Your task to perform on an android device: toggle airplane mode Image 0: 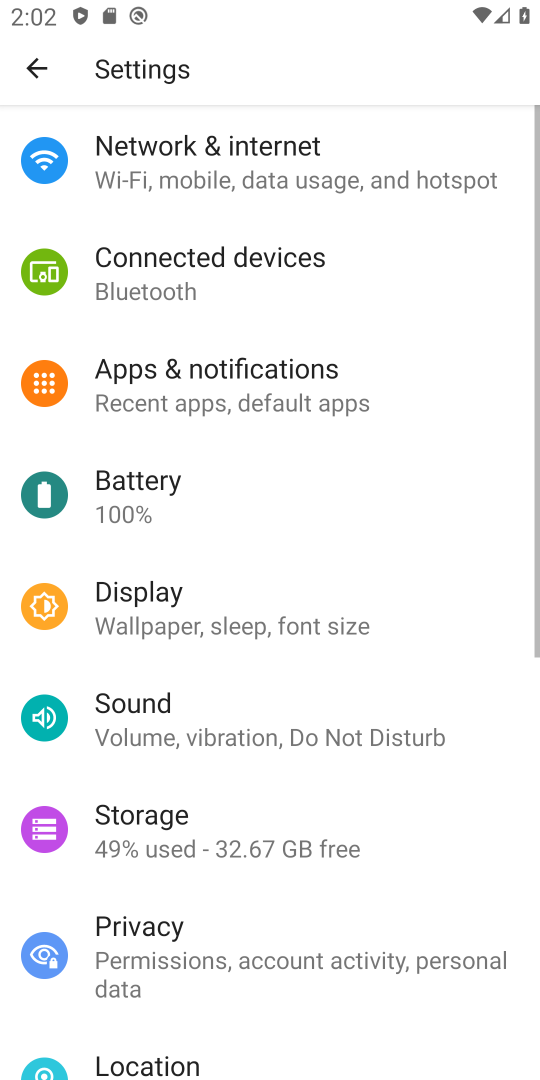
Step 0: click (28, 70)
Your task to perform on an android device: toggle airplane mode Image 1: 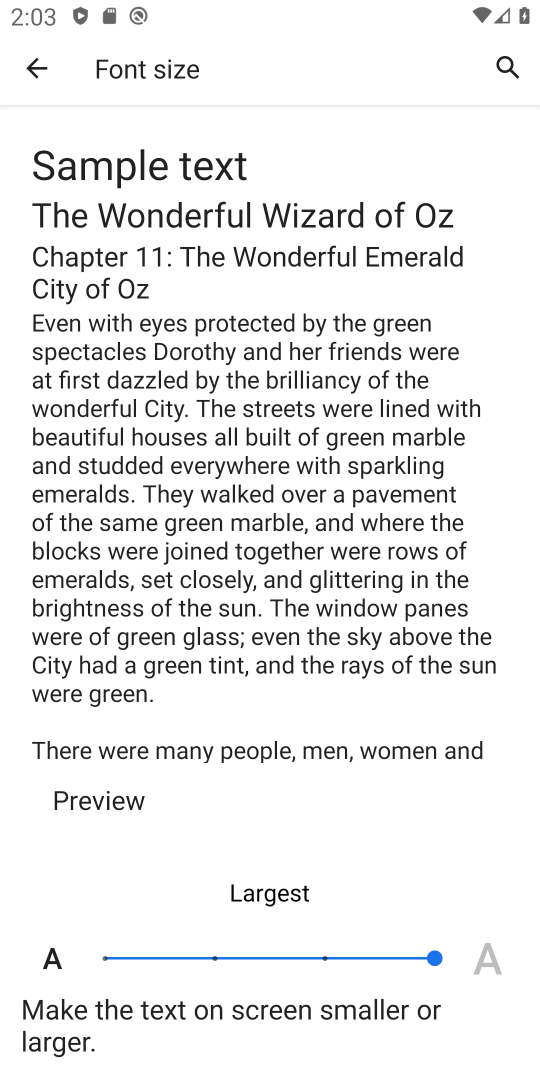
Step 1: press back button
Your task to perform on an android device: toggle airplane mode Image 2: 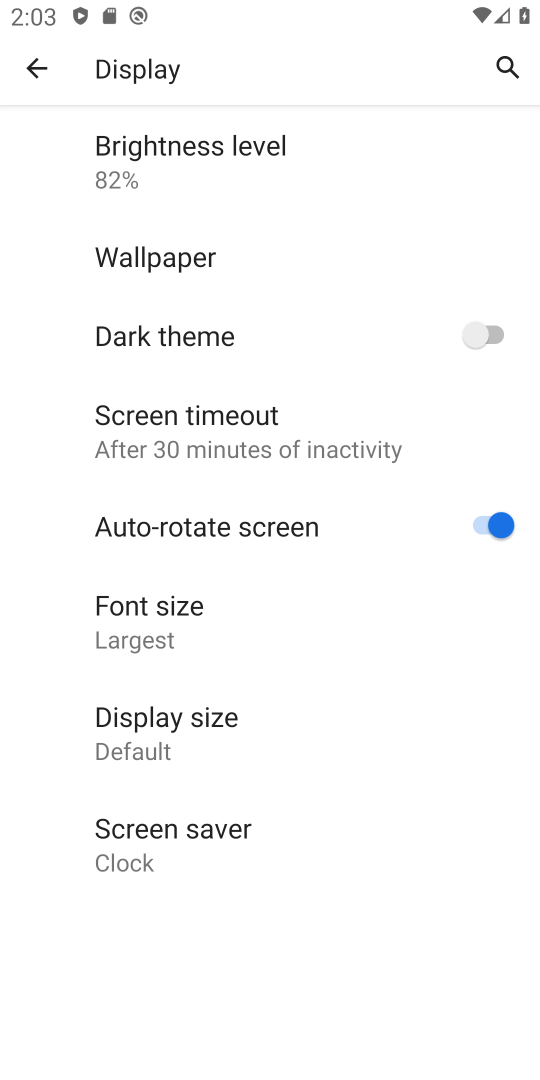
Step 2: click (27, 69)
Your task to perform on an android device: toggle airplane mode Image 3: 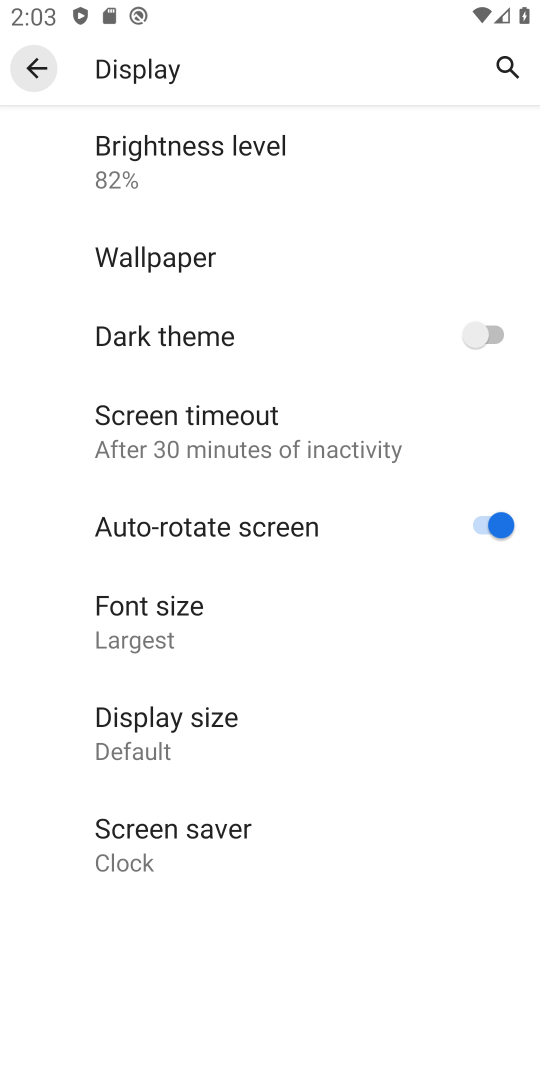
Step 3: click (28, 70)
Your task to perform on an android device: toggle airplane mode Image 4: 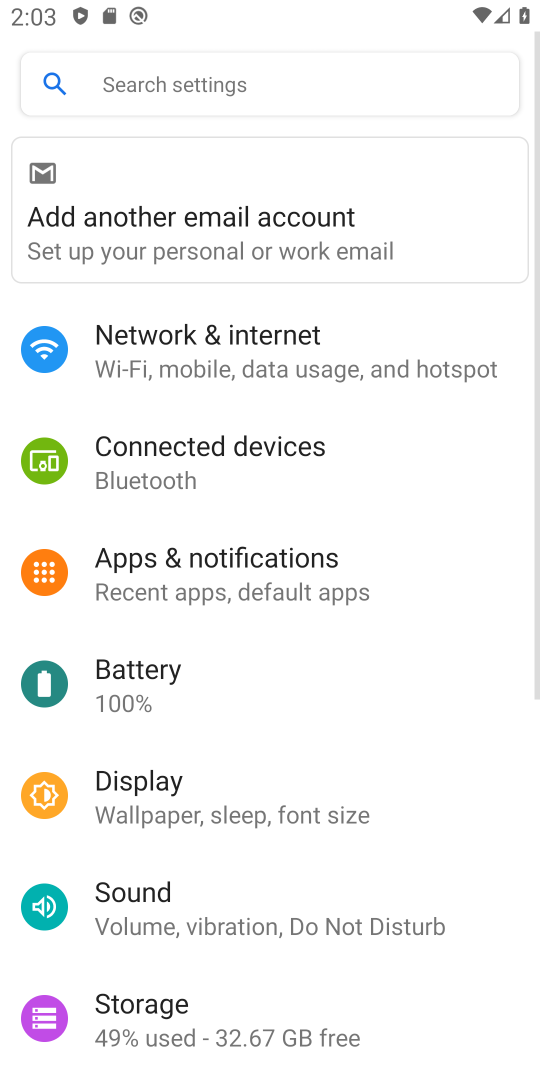
Step 4: click (229, 201)
Your task to perform on an android device: toggle airplane mode Image 5: 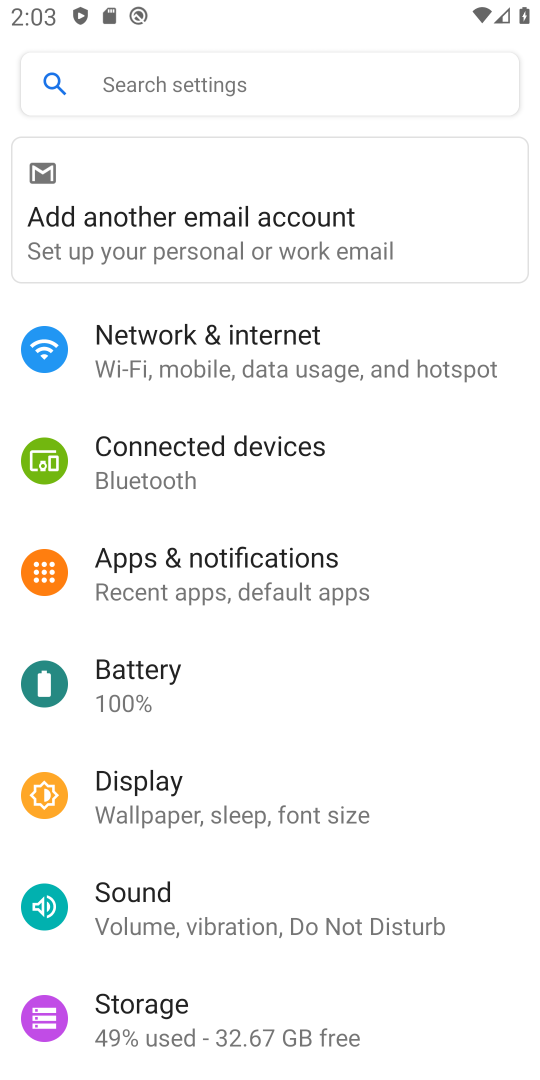
Step 5: click (216, 344)
Your task to perform on an android device: toggle airplane mode Image 6: 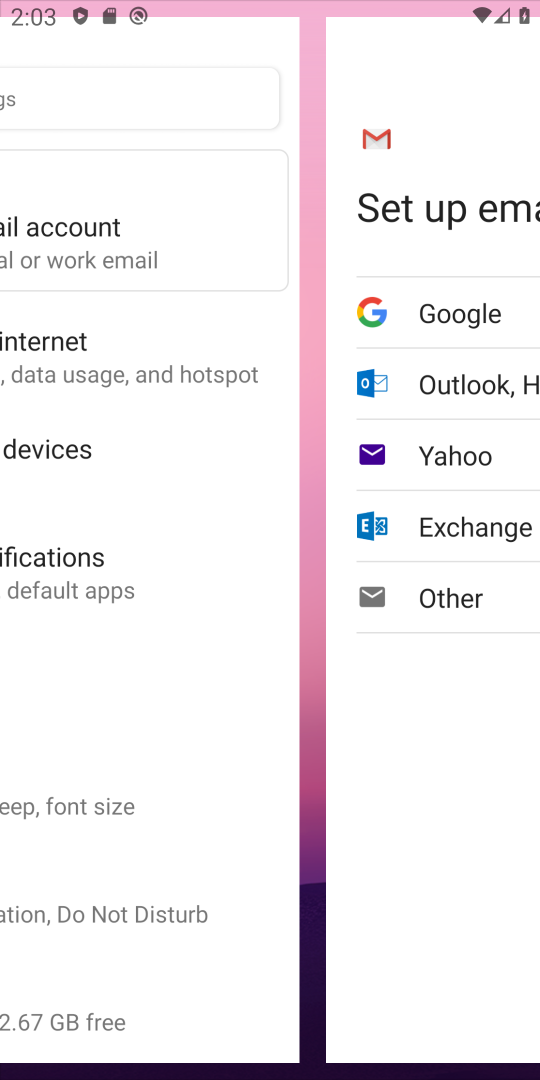
Step 6: click (226, 350)
Your task to perform on an android device: toggle airplane mode Image 7: 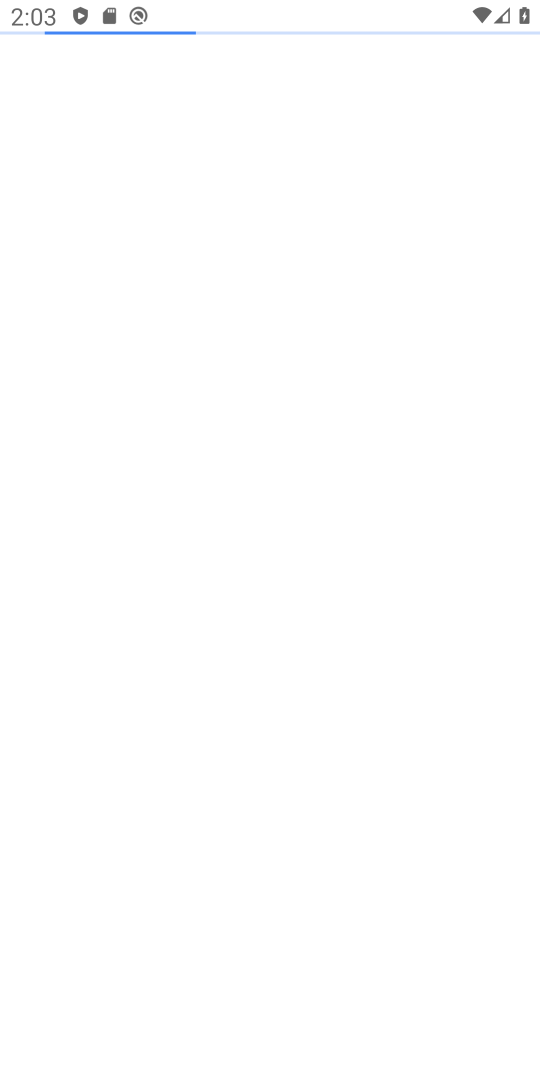
Step 7: press back button
Your task to perform on an android device: toggle airplane mode Image 8: 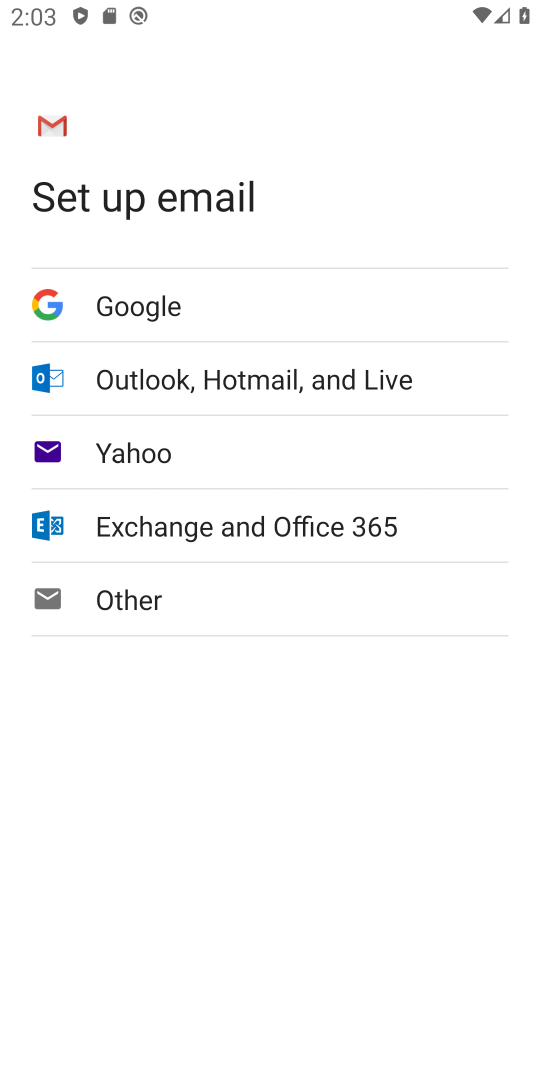
Step 8: press back button
Your task to perform on an android device: toggle airplane mode Image 9: 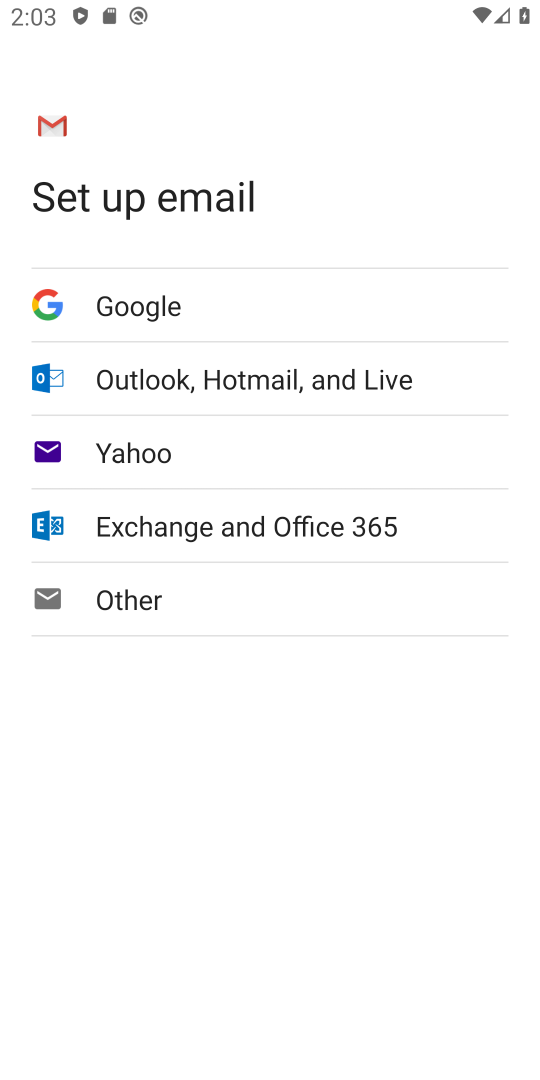
Step 9: press home button
Your task to perform on an android device: toggle airplane mode Image 10: 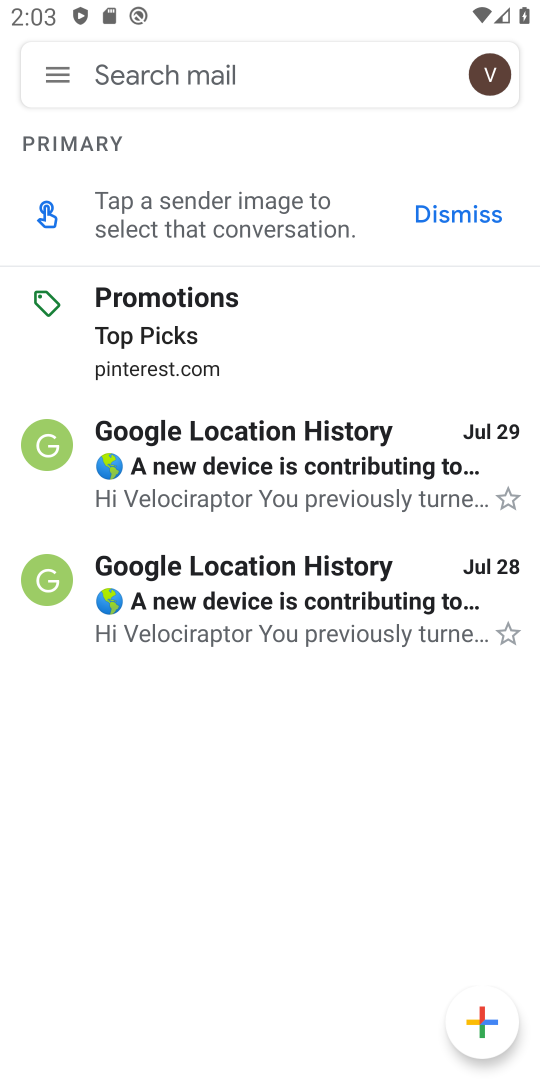
Step 10: press home button
Your task to perform on an android device: toggle airplane mode Image 11: 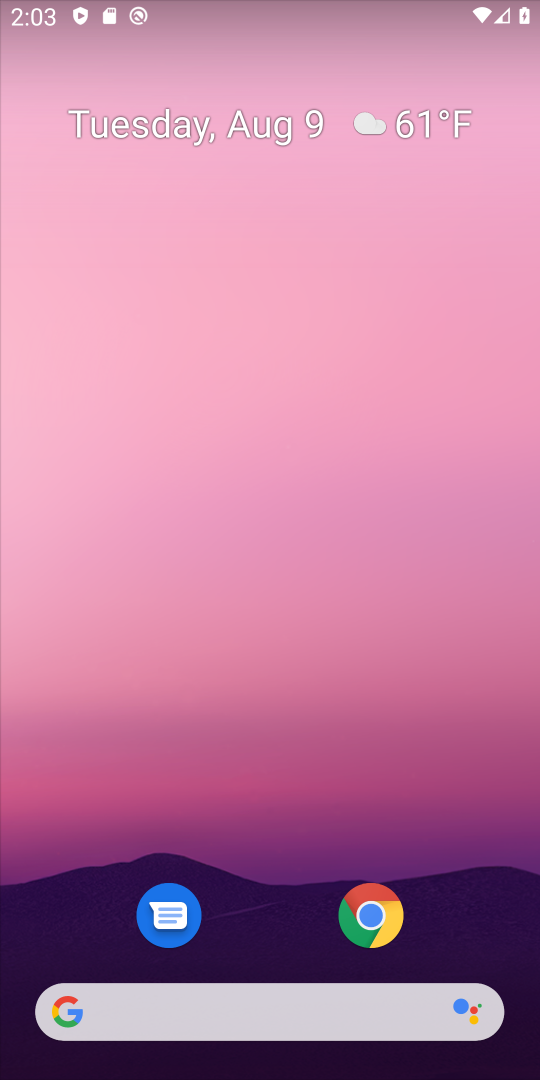
Step 11: press back button
Your task to perform on an android device: toggle airplane mode Image 12: 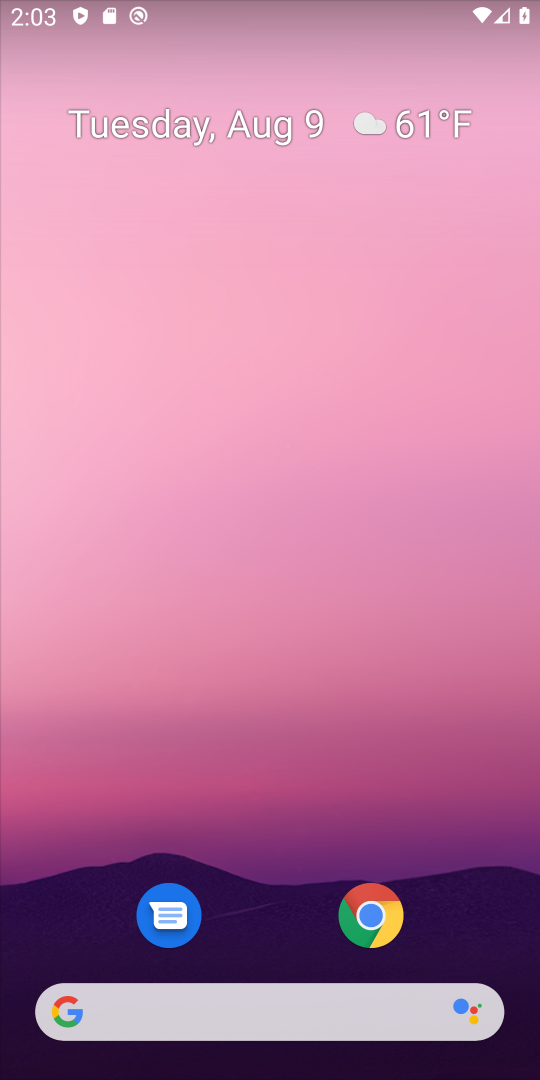
Step 12: press back button
Your task to perform on an android device: toggle airplane mode Image 13: 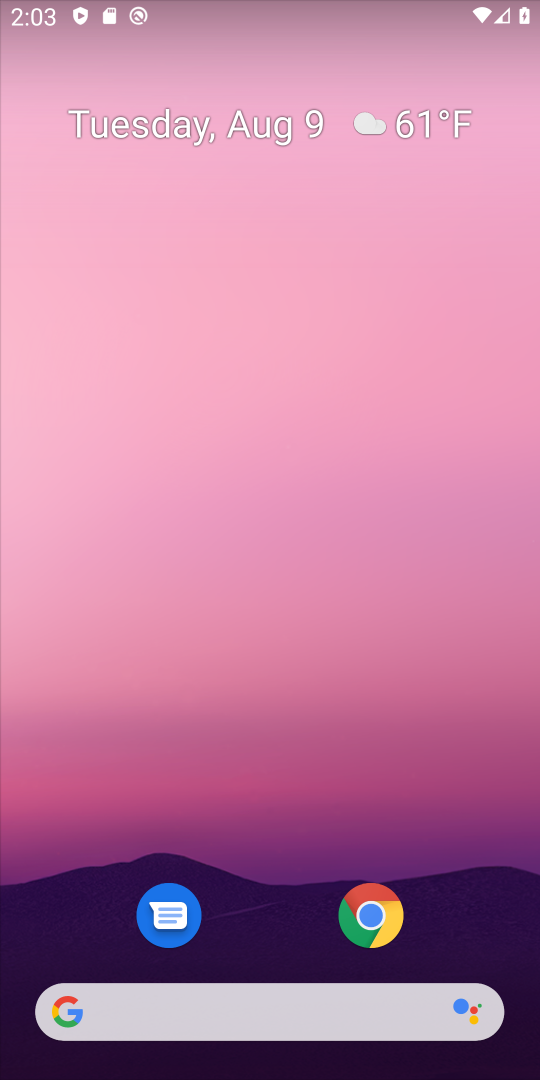
Step 13: drag from (377, 536) to (205, 183)
Your task to perform on an android device: toggle airplane mode Image 14: 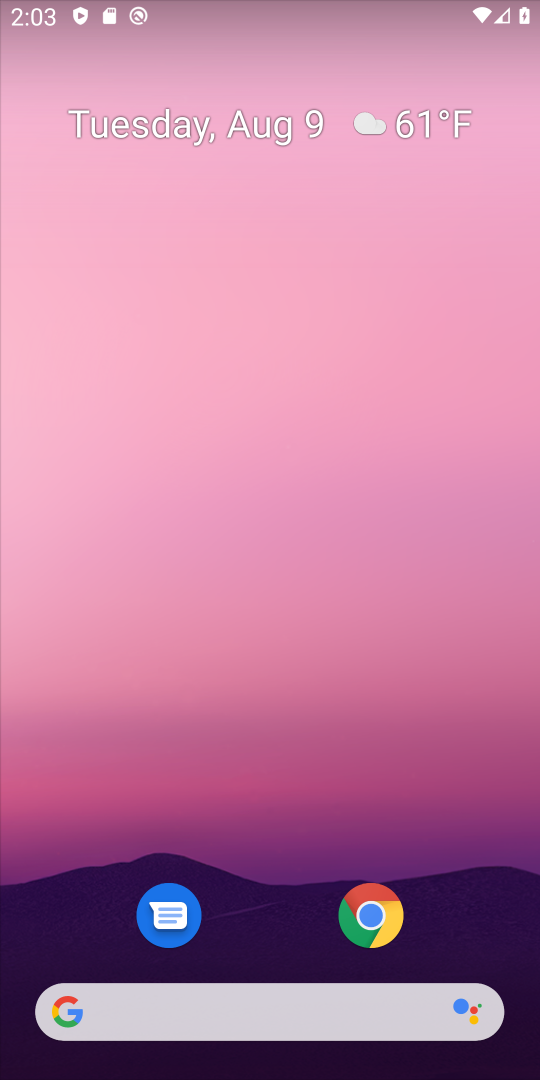
Step 14: drag from (194, 18) to (264, 84)
Your task to perform on an android device: toggle airplane mode Image 15: 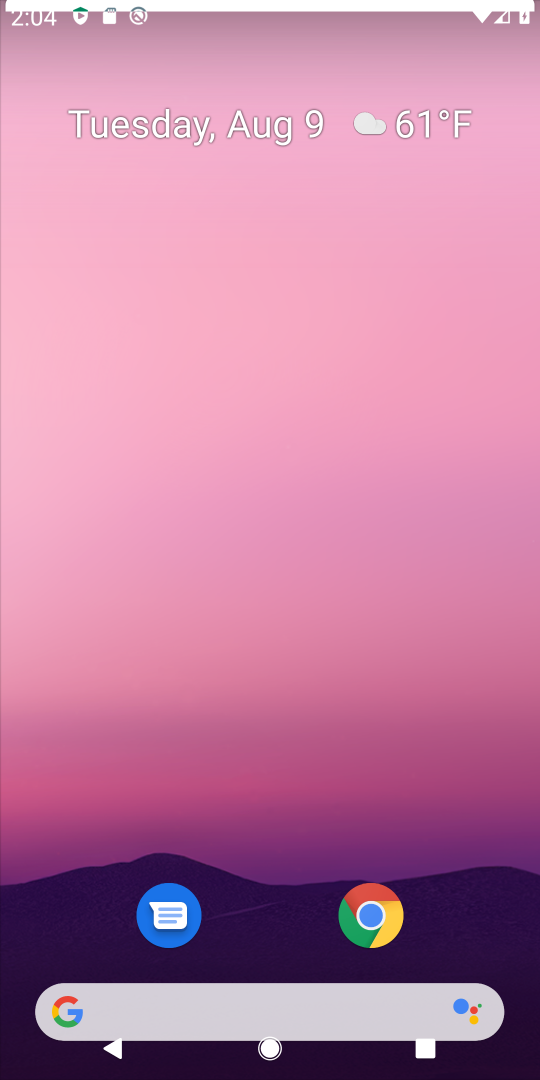
Step 15: drag from (328, 952) to (261, 228)
Your task to perform on an android device: toggle airplane mode Image 16: 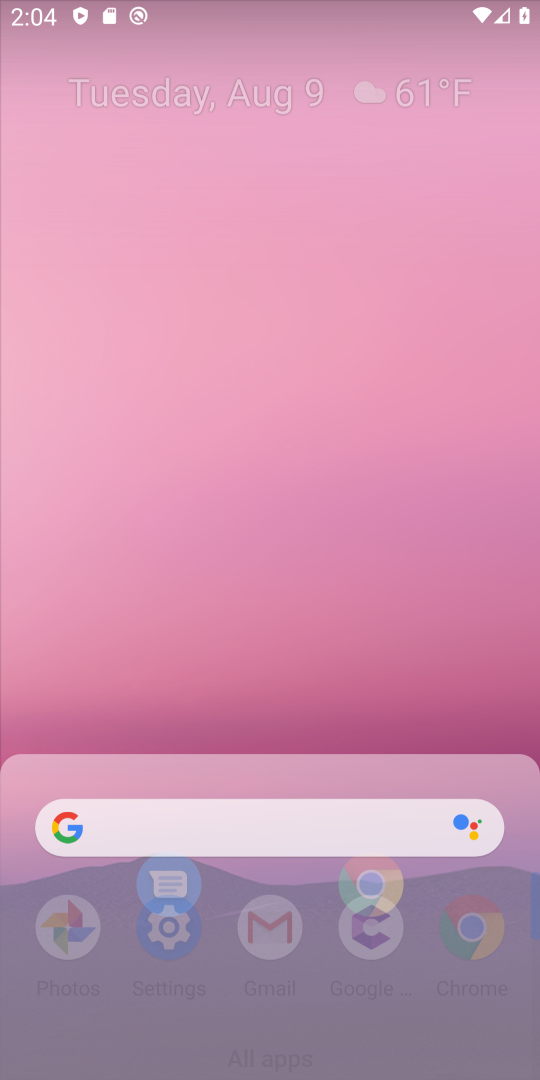
Step 16: drag from (333, 574) to (333, 139)
Your task to perform on an android device: toggle airplane mode Image 17: 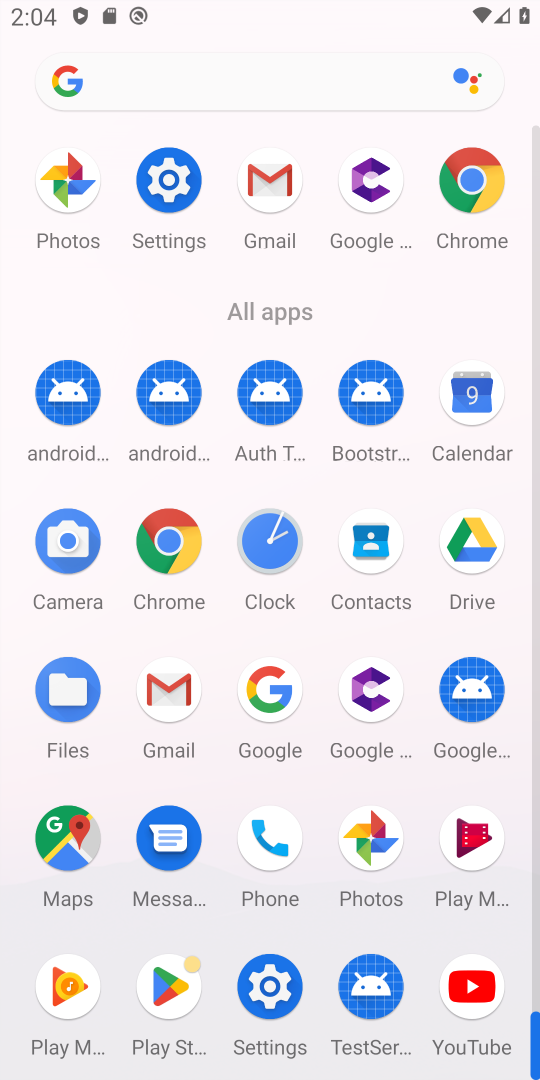
Step 17: click (175, 186)
Your task to perform on an android device: toggle airplane mode Image 18: 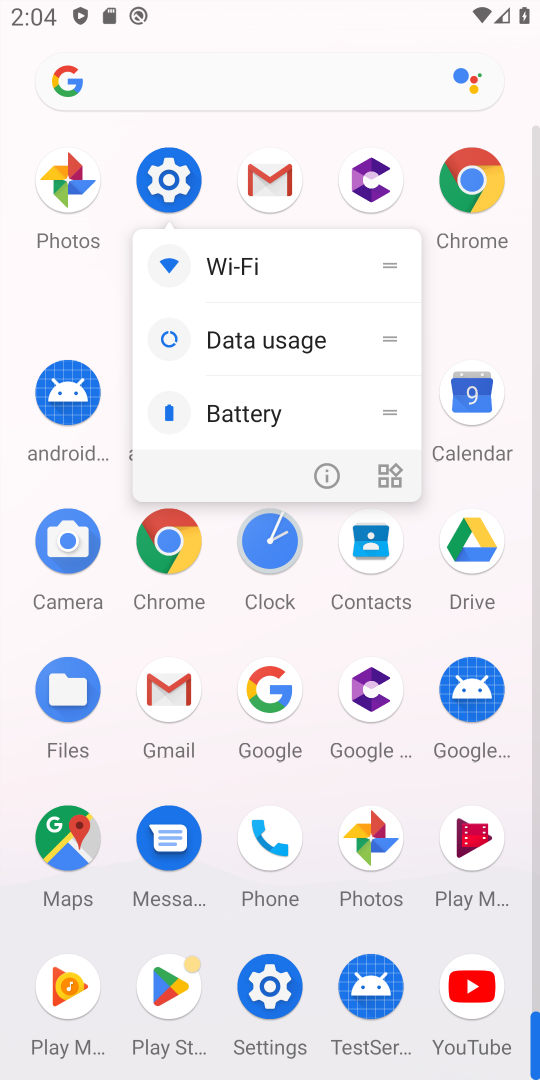
Step 18: click (174, 186)
Your task to perform on an android device: toggle airplane mode Image 19: 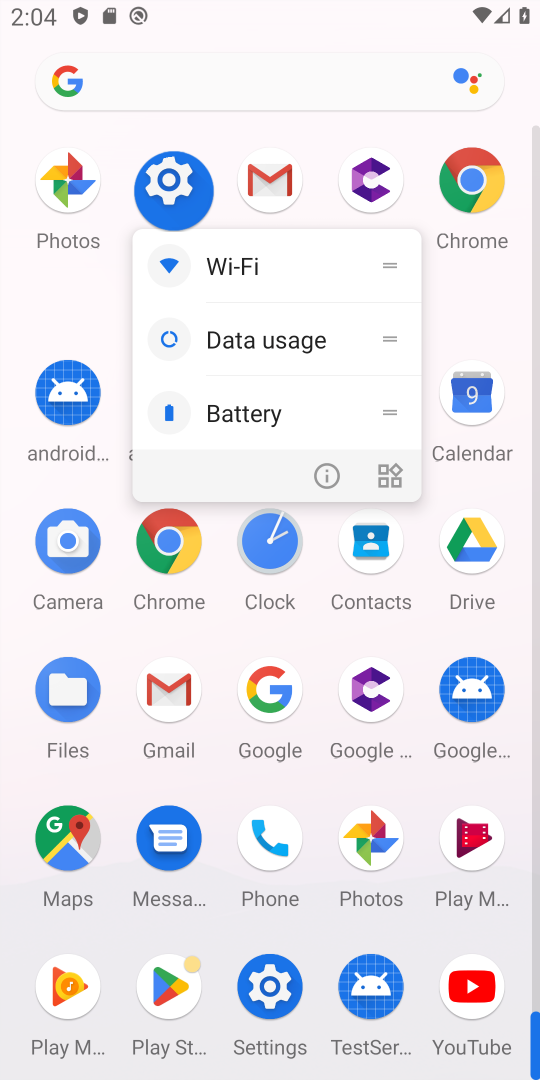
Step 19: click (180, 200)
Your task to perform on an android device: toggle airplane mode Image 20: 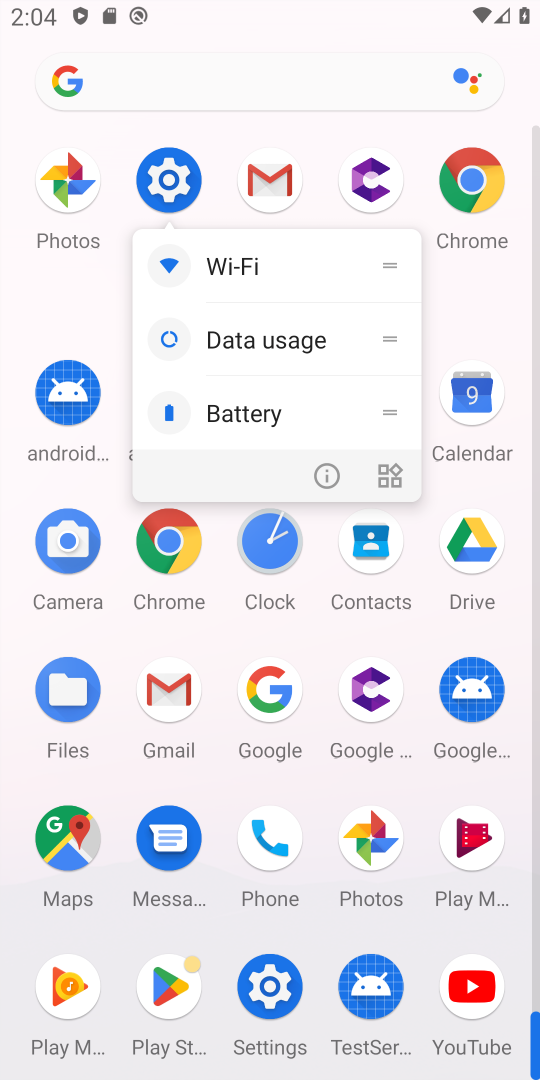
Step 20: click (234, 260)
Your task to perform on an android device: toggle airplane mode Image 21: 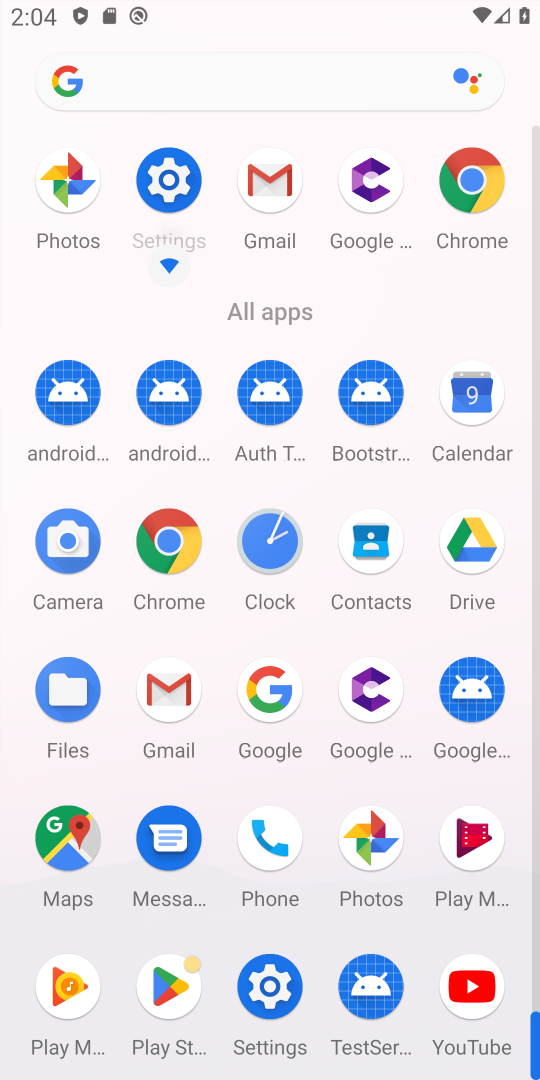
Step 21: click (234, 263)
Your task to perform on an android device: toggle airplane mode Image 22: 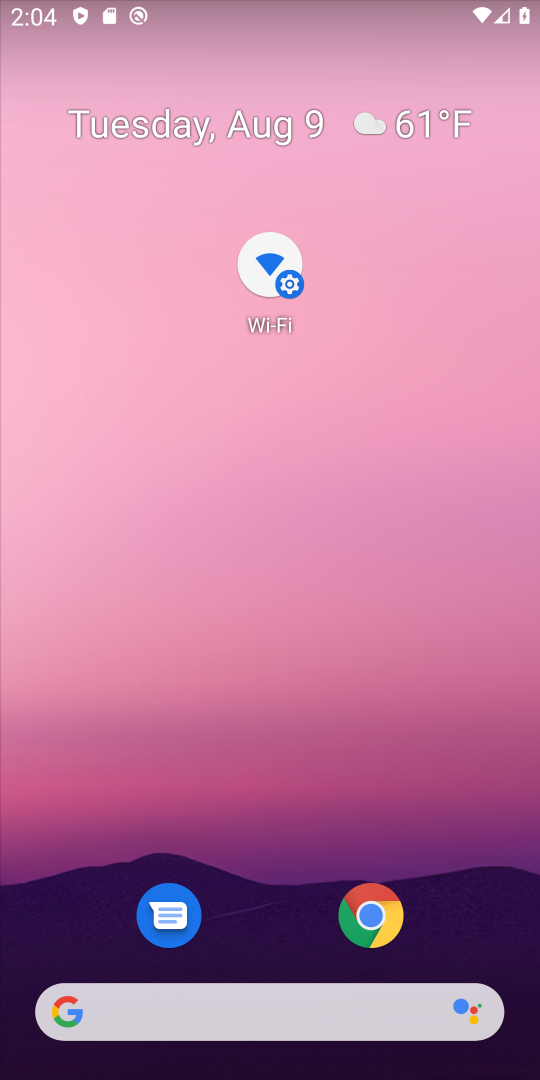
Step 22: drag from (287, 74) to (252, 361)
Your task to perform on an android device: toggle airplane mode Image 23: 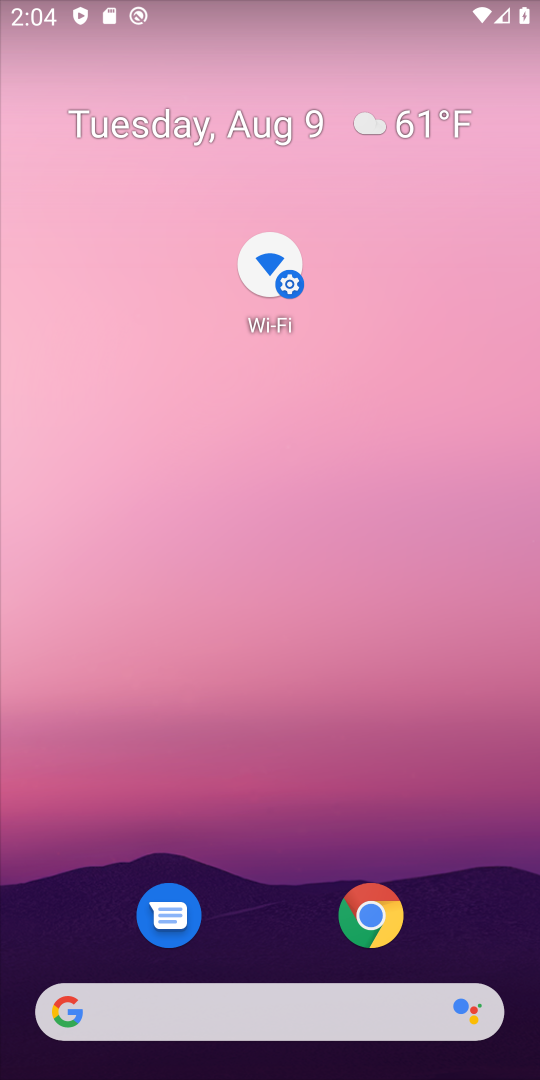
Step 23: drag from (364, 661) to (338, 392)
Your task to perform on an android device: toggle airplane mode Image 24: 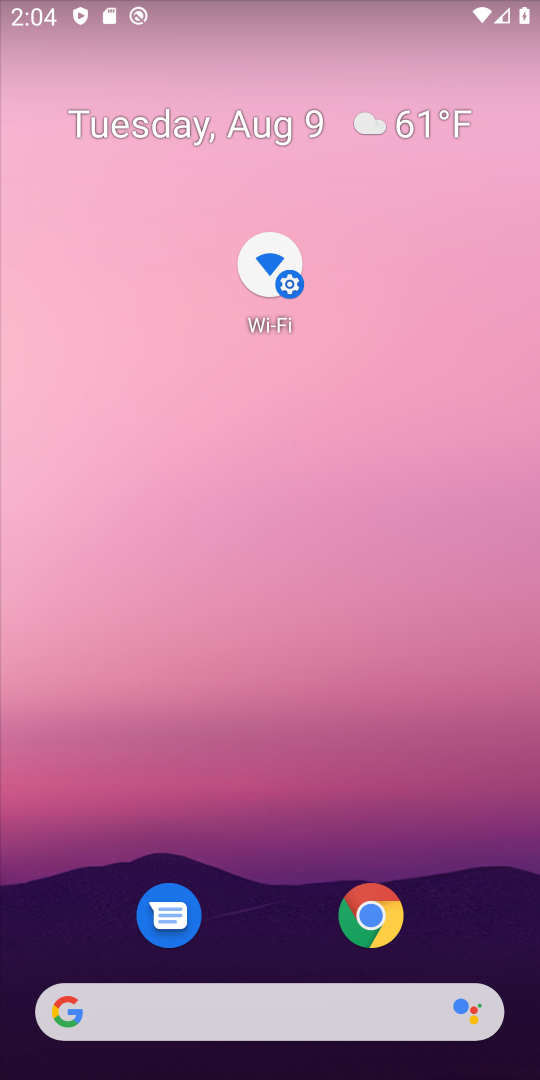
Step 24: drag from (339, 600) to (341, 291)
Your task to perform on an android device: toggle airplane mode Image 25: 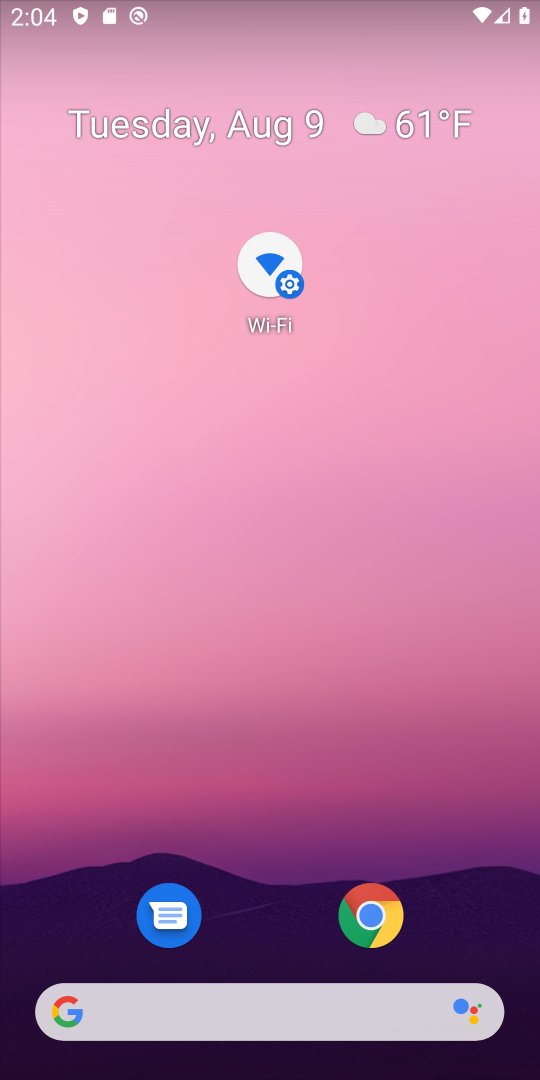
Step 25: click (268, 26)
Your task to perform on an android device: toggle airplane mode Image 26: 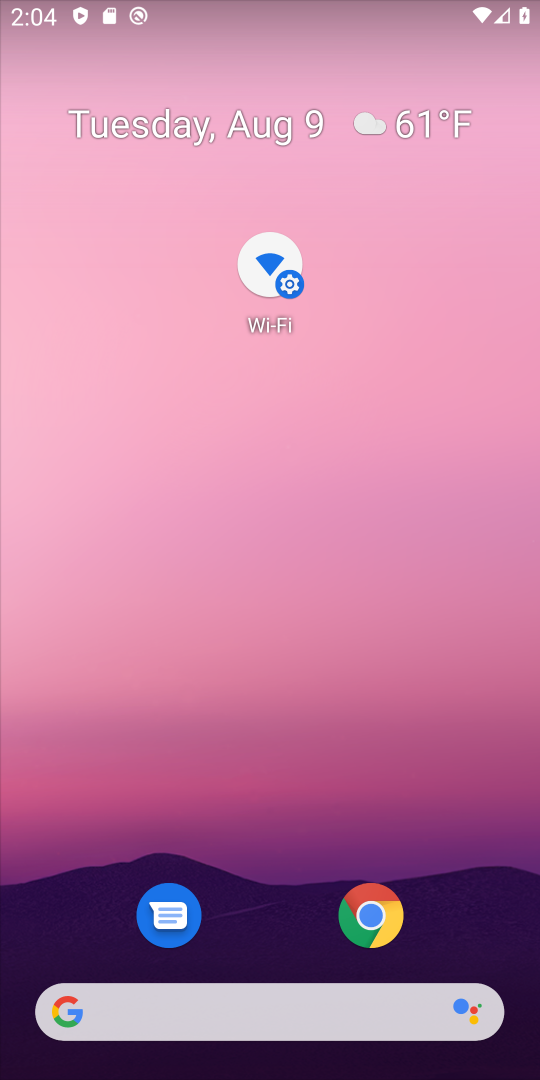
Step 26: drag from (279, 442) to (282, 3)
Your task to perform on an android device: toggle airplane mode Image 27: 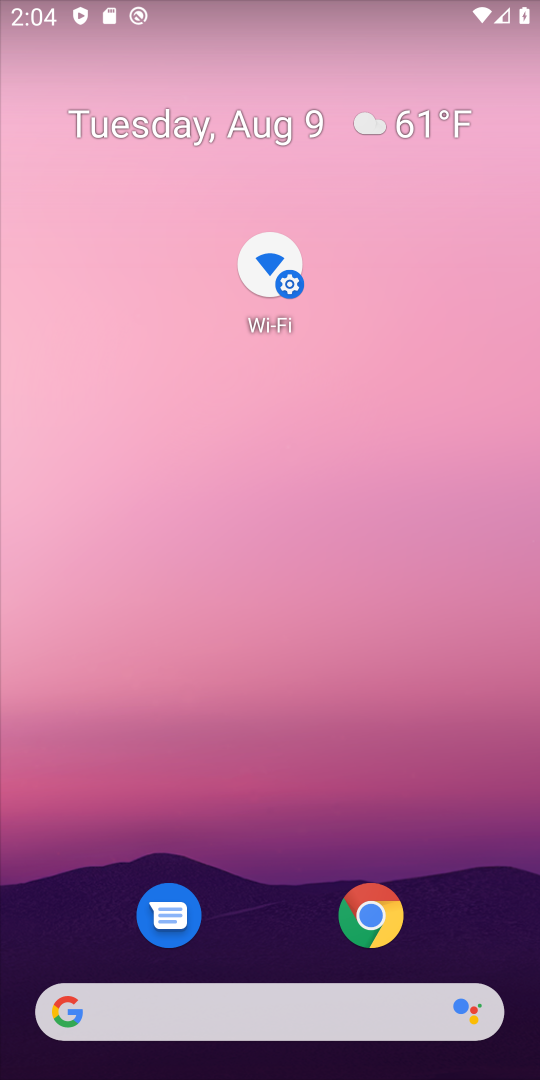
Step 27: drag from (352, 665) to (269, 170)
Your task to perform on an android device: toggle airplane mode Image 28: 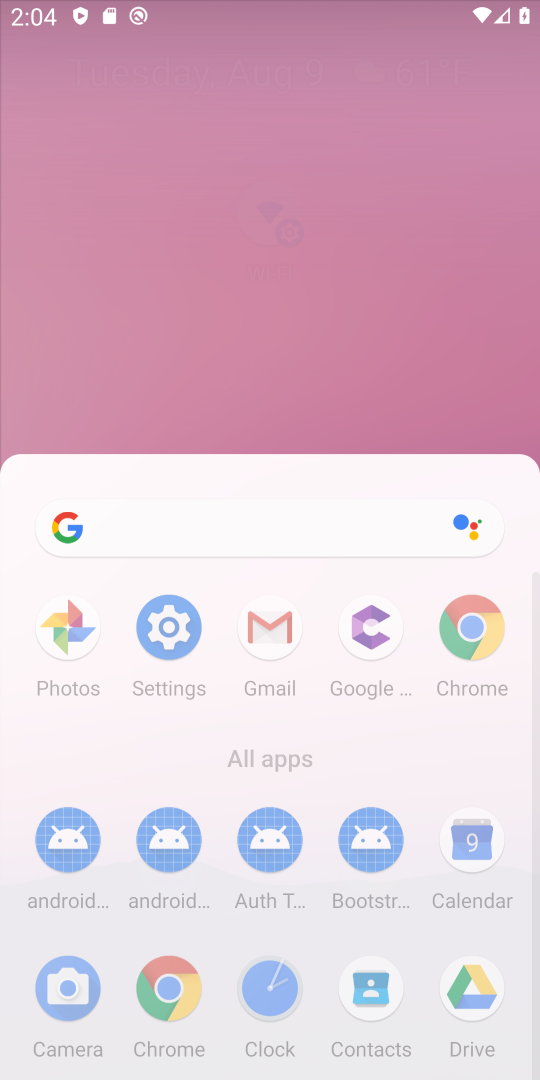
Step 28: drag from (263, 662) to (263, 239)
Your task to perform on an android device: toggle airplane mode Image 29: 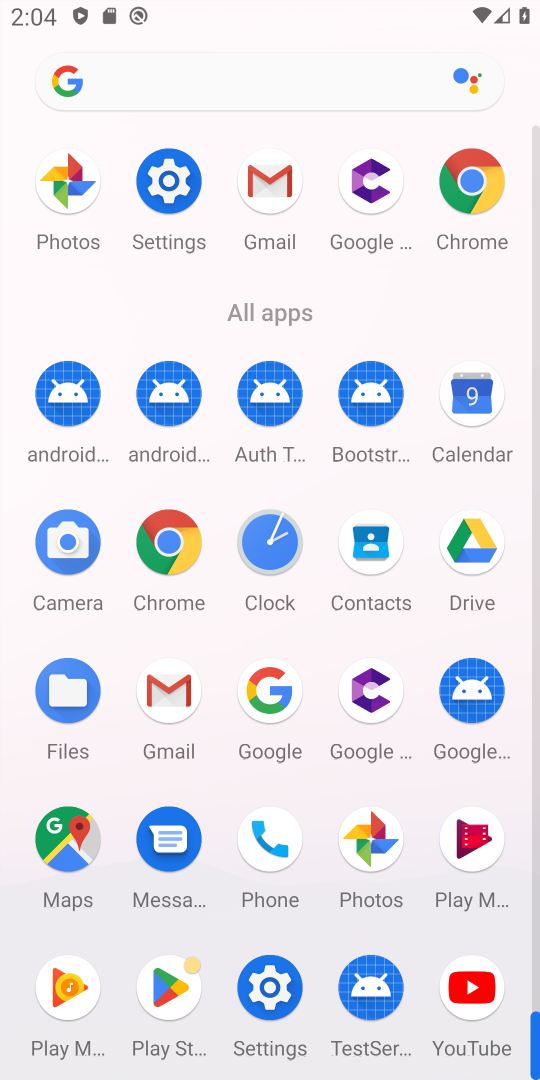
Step 29: click (167, 186)
Your task to perform on an android device: toggle airplane mode Image 30: 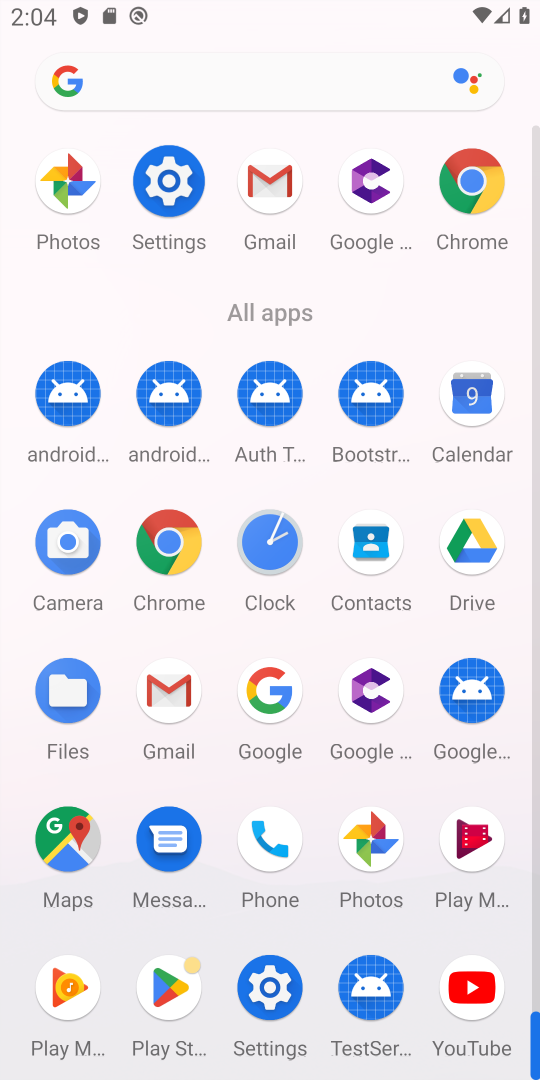
Step 30: click (169, 184)
Your task to perform on an android device: toggle airplane mode Image 31: 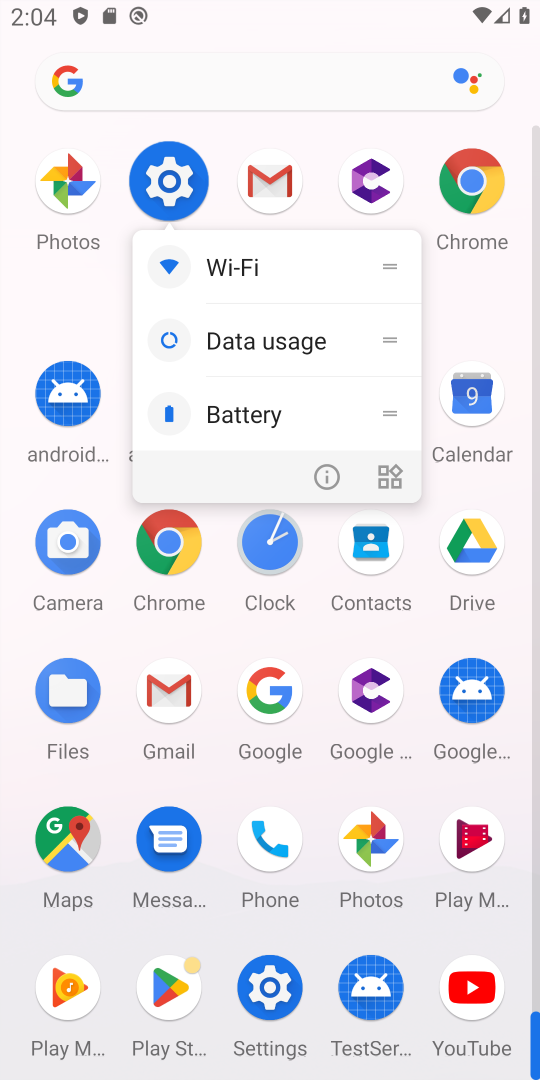
Step 31: click (177, 190)
Your task to perform on an android device: toggle airplane mode Image 32: 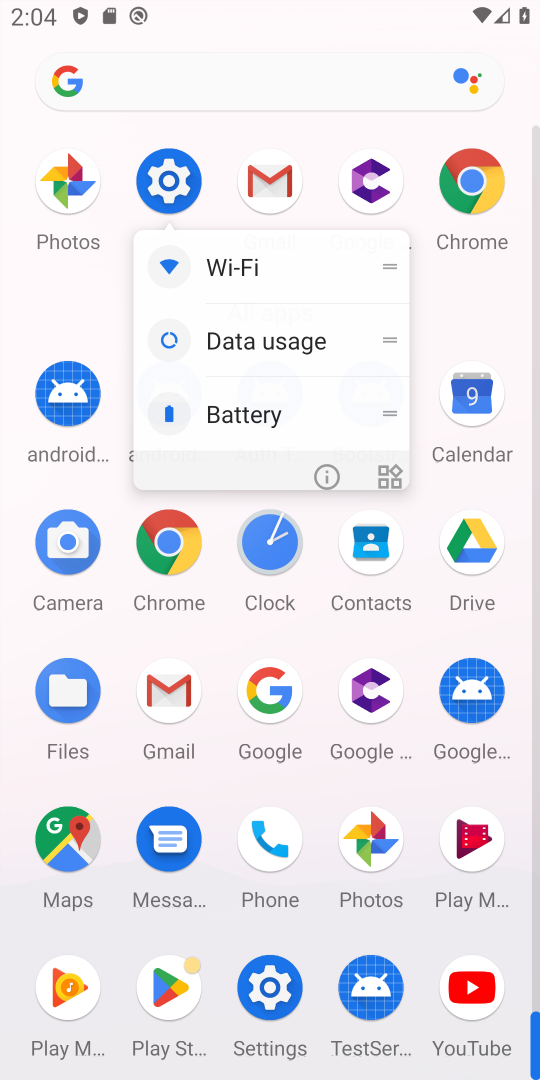
Step 32: click (181, 199)
Your task to perform on an android device: toggle airplane mode Image 33: 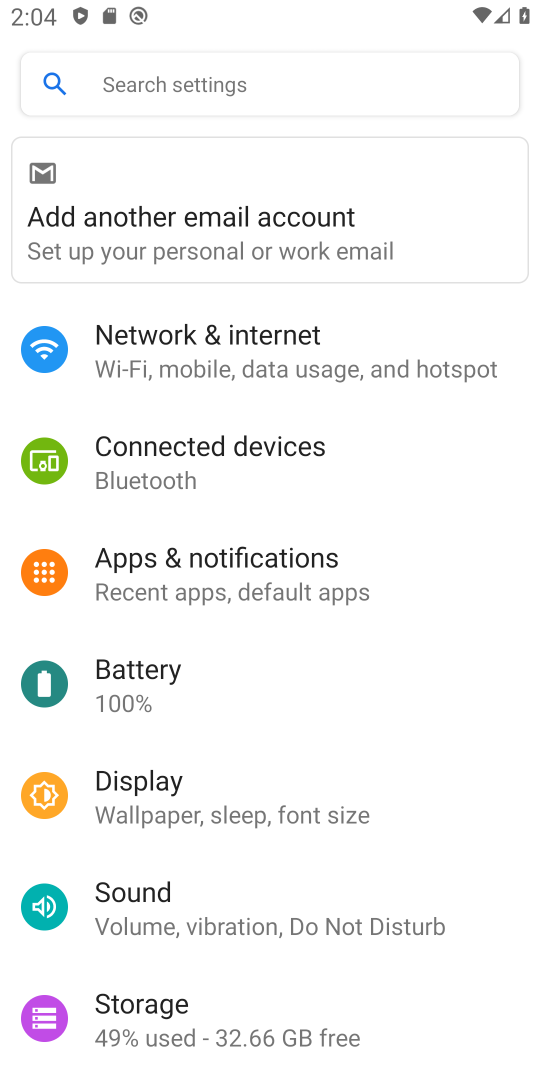
Step 33: click (177, 355)
Your task to perform on an android device: toggle airplane mode Image 34: 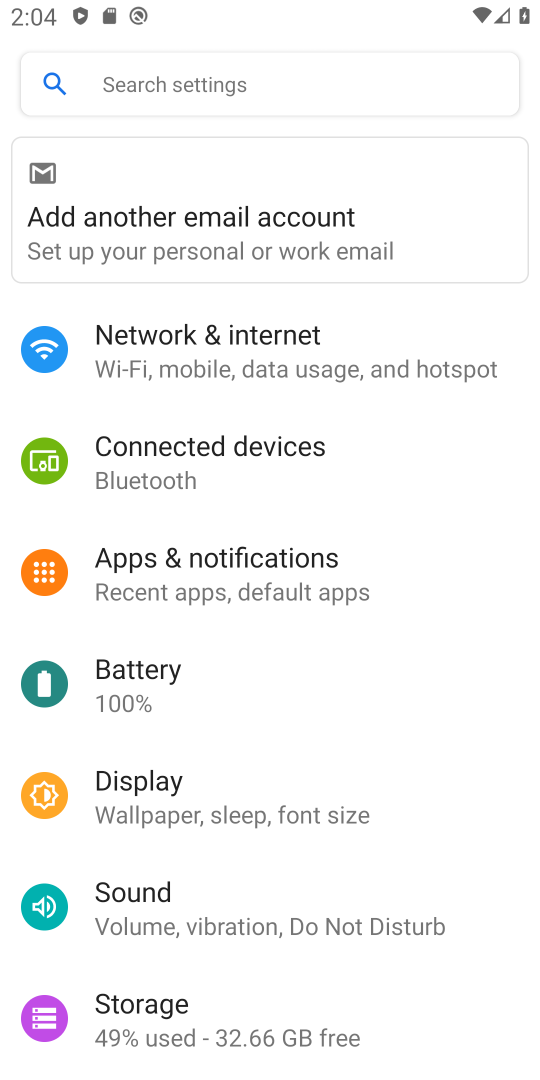
Step 34: click (177, 355)
Your task to perform on an android device: toggle airplane mode Image 35: 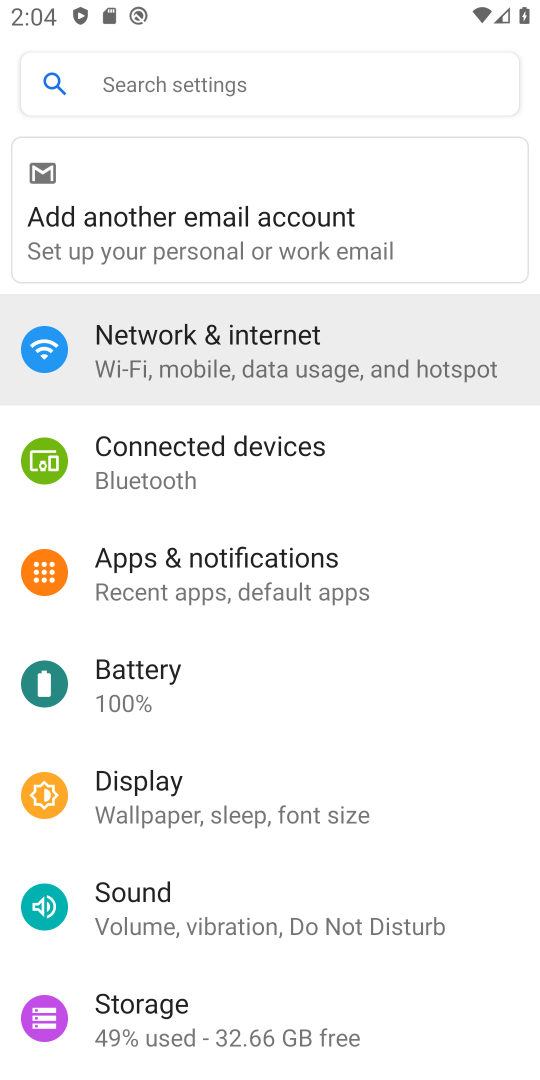
Step 35: click (198, 373)
Your task to perform on an android device: toggle airplane mode Image 36: 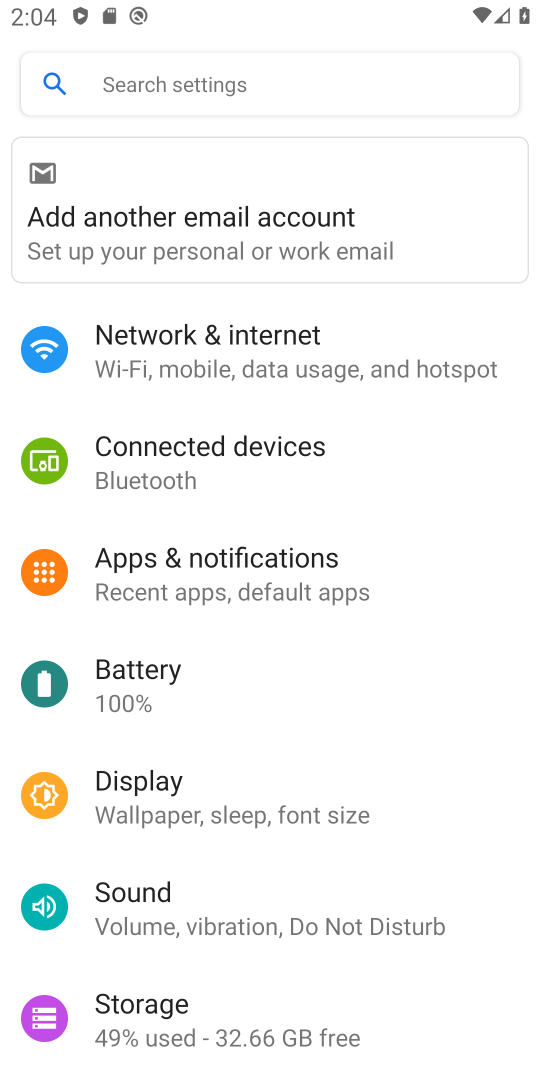
Step 36: click (198, 373)
Your task to perform on an android device: toggle airplane mode Image 37: 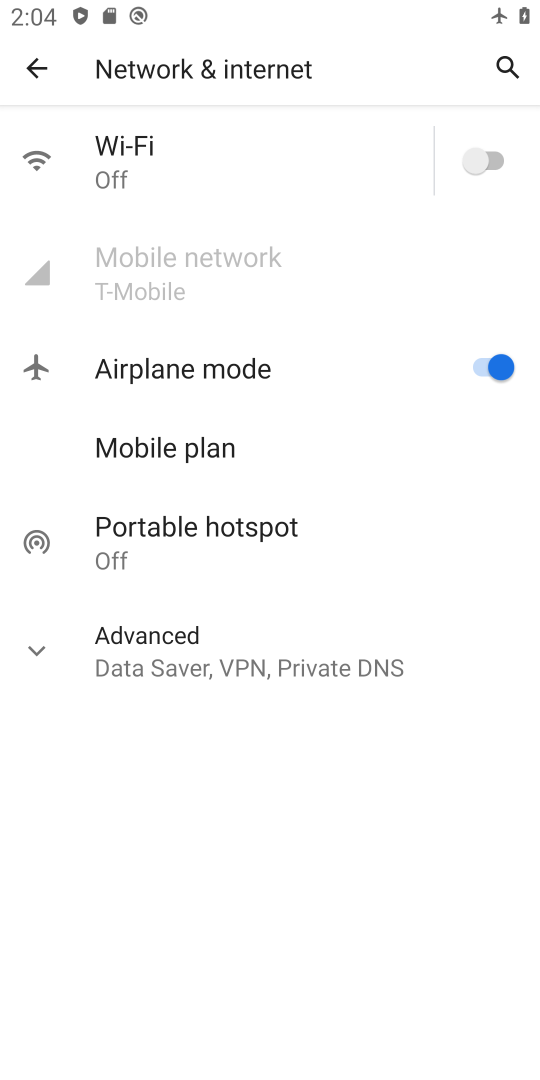
Step 37: task complete